Your task to perform on an android device: turn on notifications settings in the gmail app Image 0: 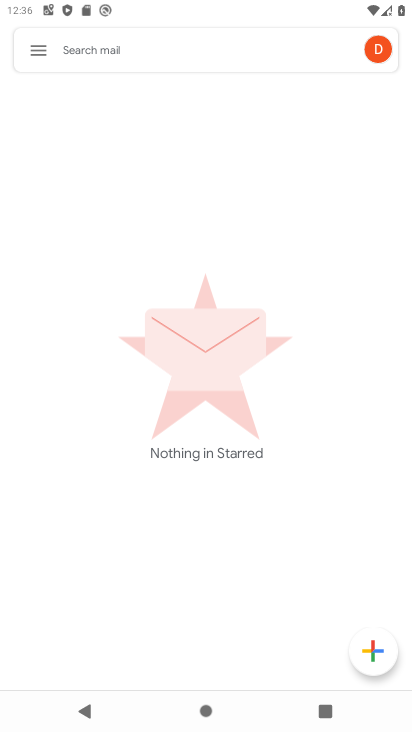
Step 0: click (278, 494)
Your task to perform on an android device: turn on notifications settings in the gmail app Image 1: 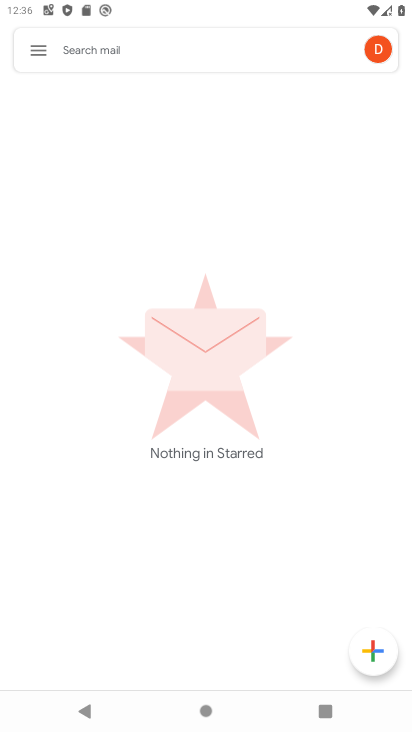
Step 1: press home button
Your task to perform on an android device: turn on notifications settings in the gmail app Image 2: 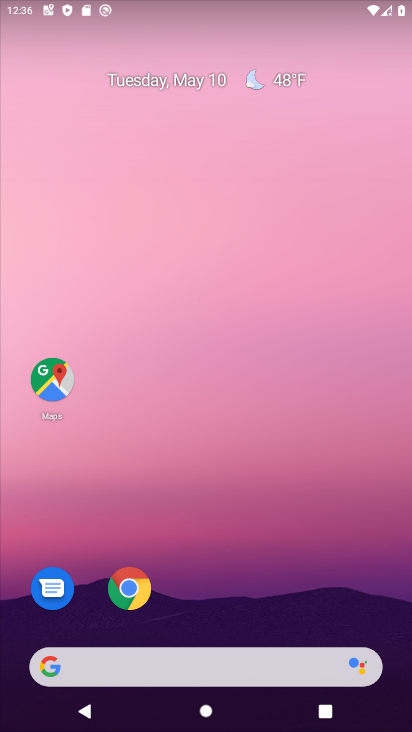
Step 2: drag from (250, 573) to (291, 215)
Your task to perform on an android device: turn on notifications settings in the gmail app Image 3: 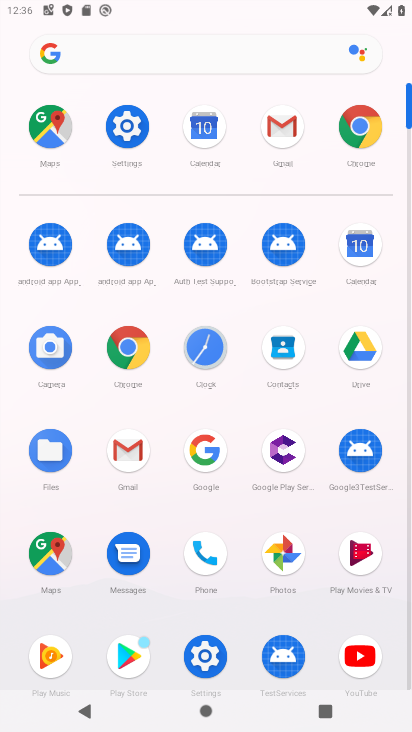
Step 3: click (272, 120)
Your task to perform on an android device: turn on notifications settings in the gmail app Image 4: 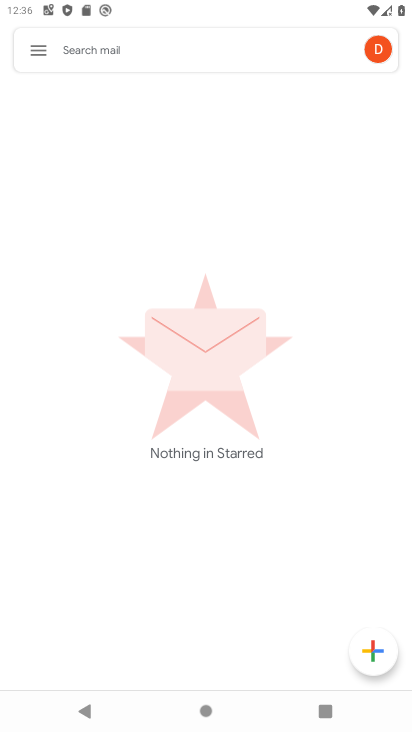
Step 4: click (38, 56)
Your task to perform on an android device: turn on notifications settings in the gmail app Image 5: 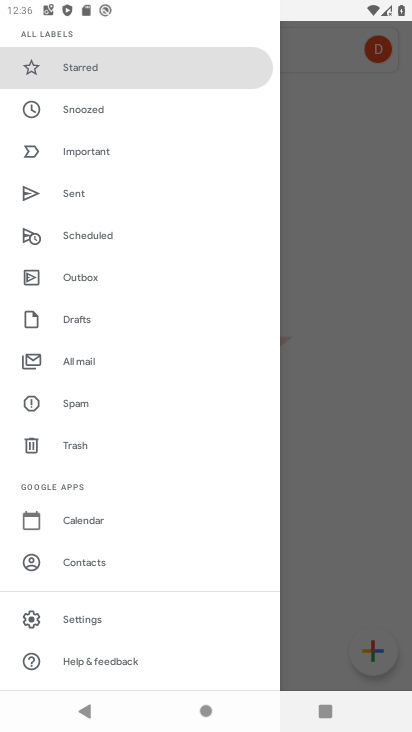
Step 5: click (177, 621)
Your task to perform on an android device: turn on notifications settings in the gmail app Image 6: 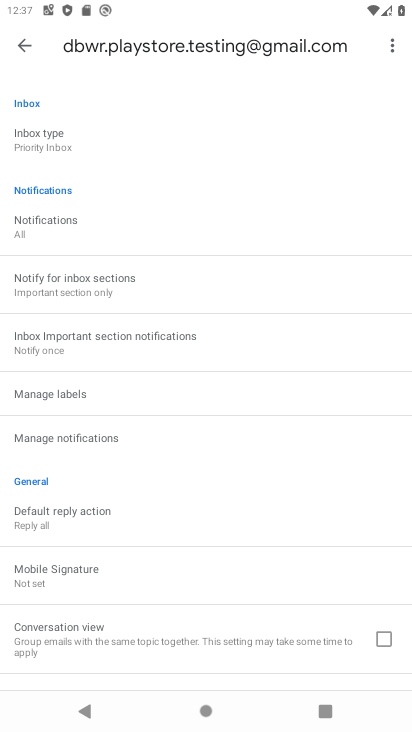
Step 6: click (50, 239)
Your task to perform on an android device: turn on notifications settings in the gmail app Image 7: 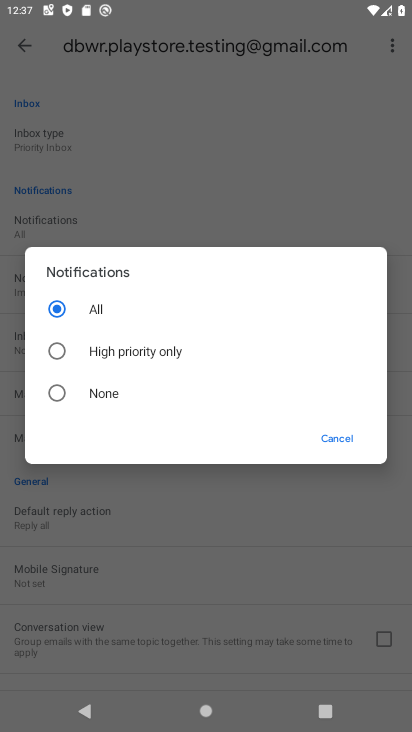
Step 7: task complete